Your task to perform on an android device: read, delete, or share a saved page in the chrome app Image 0: 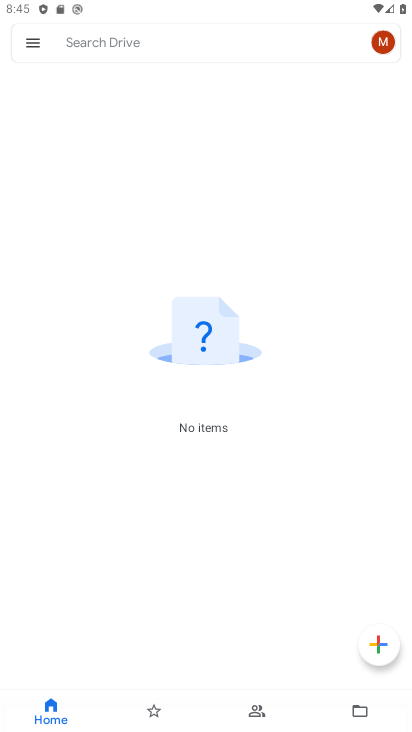
Step 0: press home button
Your task to perform on an android device: read, delete, or share a saved page in the chrome app Image 1: 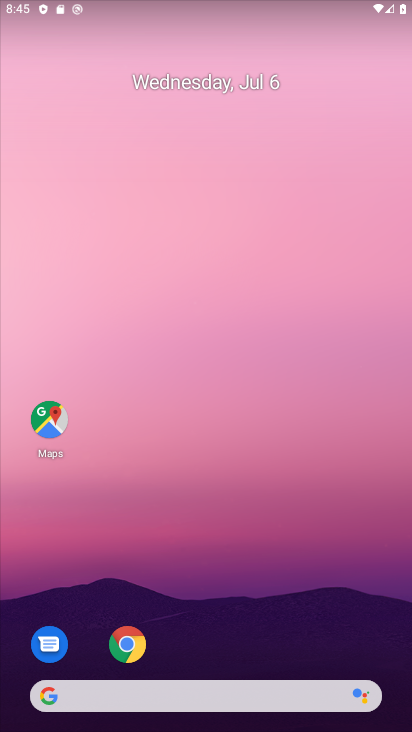
Step 1: drag from (179, 611) to (239, 171)
Your task to perform on an android device: read, delete, or share a saved page in the chrome app Image 2: 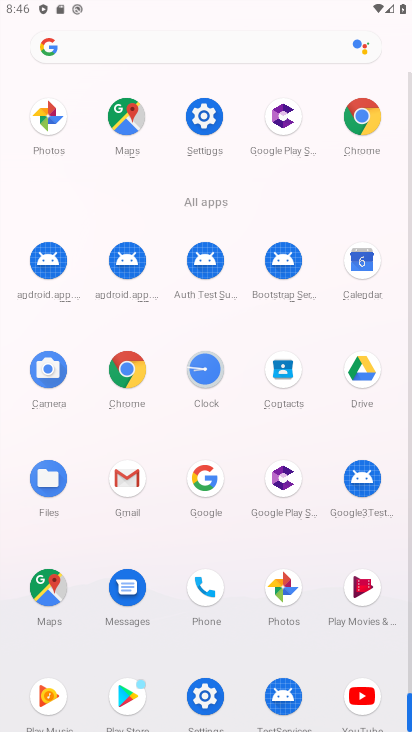
Step 2: click (363, 141)
Your task to perform on an android device: read, delete, or share a saved page in the chrome app Image 3: 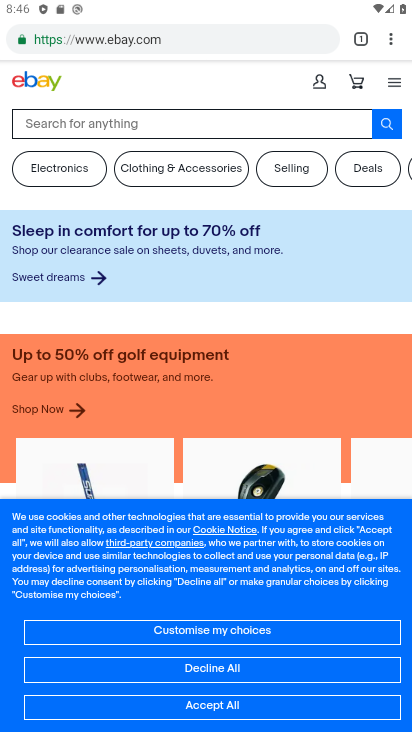
Step 3: click (381, 48)
Your task to perform on an android device: read, delete, or share a saved page in the chrome app Image 4: 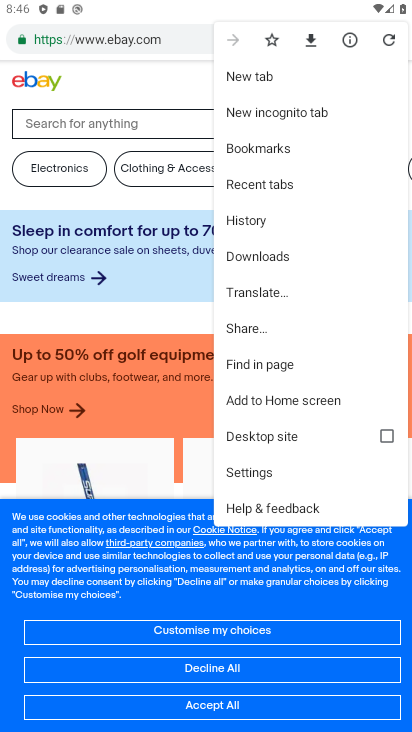
Step 4: click (288, 256)
Your task to perform on an android device: read, delete, or share a saved page in the chrome app Image 5: 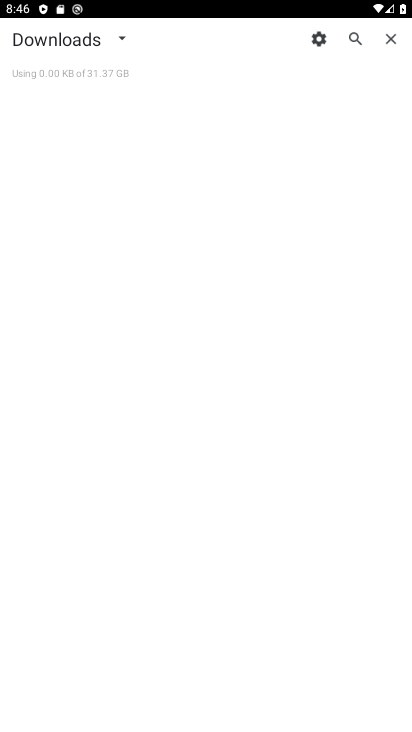
Step 5: click (360, 313)
Your task to perform on an android device: read, delete, or share a saved page in the chrome app Image 6: 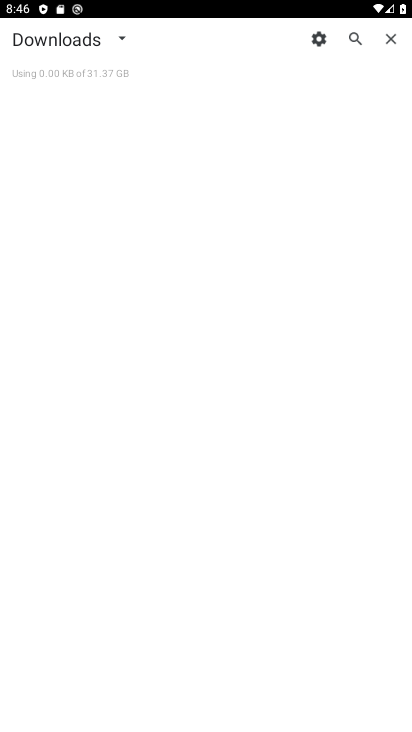
Step 6: click (109, 33)
Your task to perform on an android device: read, delete, or share a saved page in the chrome app Image 7: 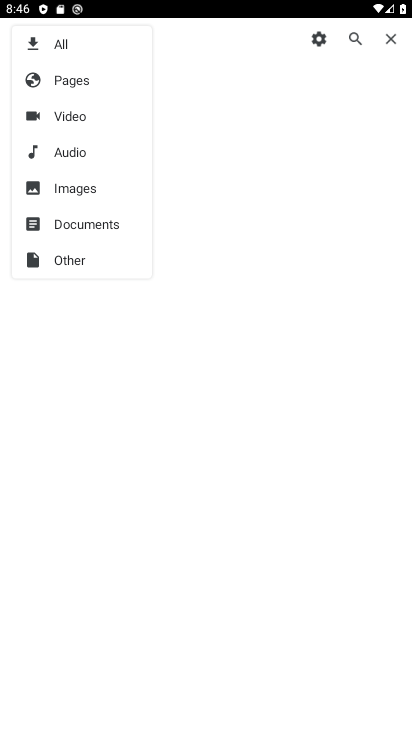
Step 7: click (82, 85)
Your task to perform on an android device: read, delete, or share a saved page in the chrome app Image 8: 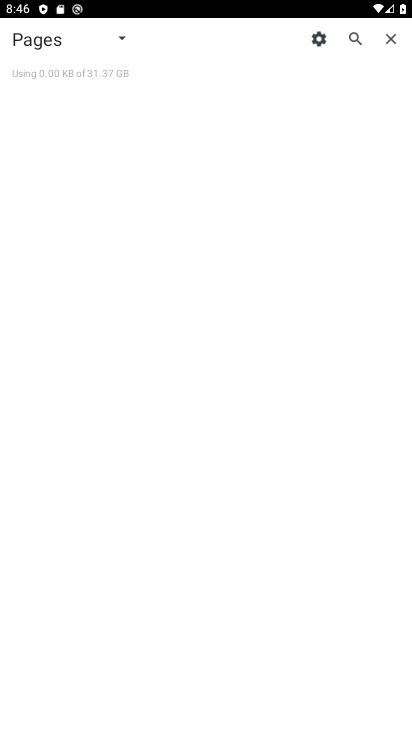
Step 8: task complete